Your task to perform on an android device: Open Google Maps Image 0: 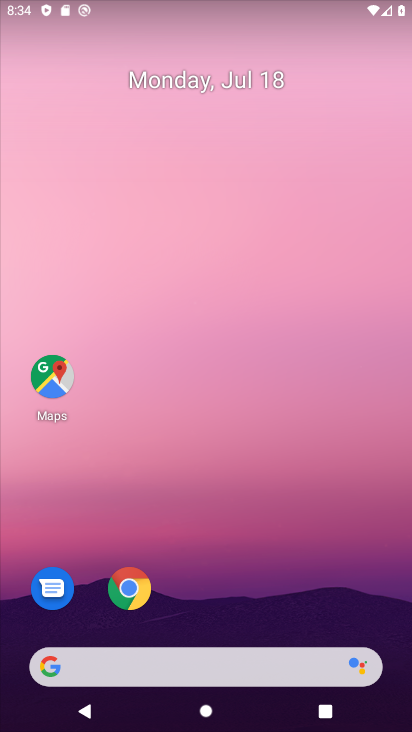
Step 0: drag from (229, 601) to (178, 64)
Your task to perform on an android device: Open Google Maps Image 1: 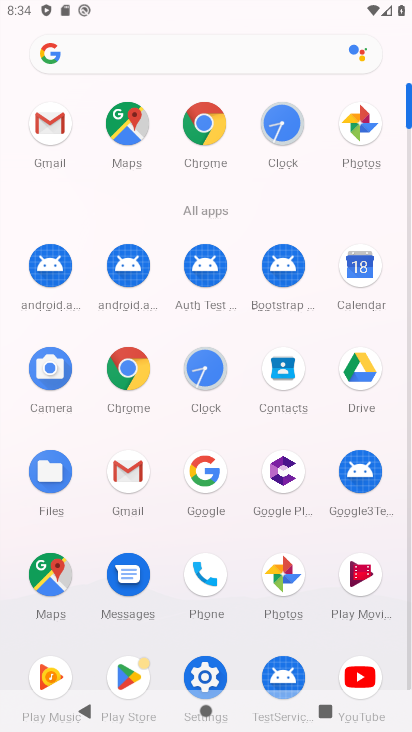
Step 1: click (48, 569)
Your task to perform on an android device: Open Google Maps Image 2: 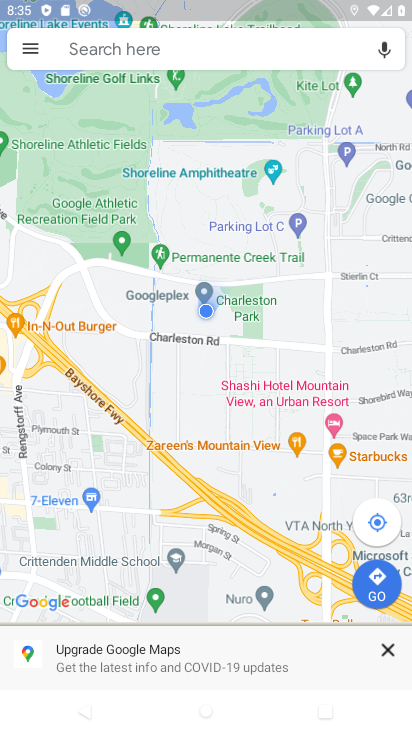
Step 2: task complete